Your task to perform on an android device: Search for vegetarian restaurants on Maps Image 0: 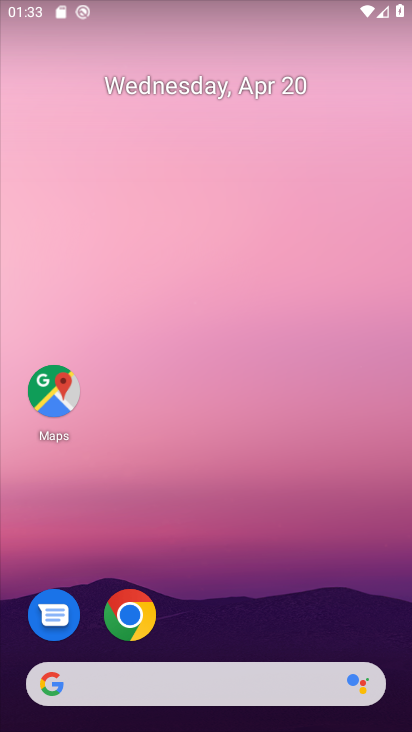
Step 0: click (47, 388)
Your task to perform on an android device: Search for vegetarian restaurants on Maps Image 1: 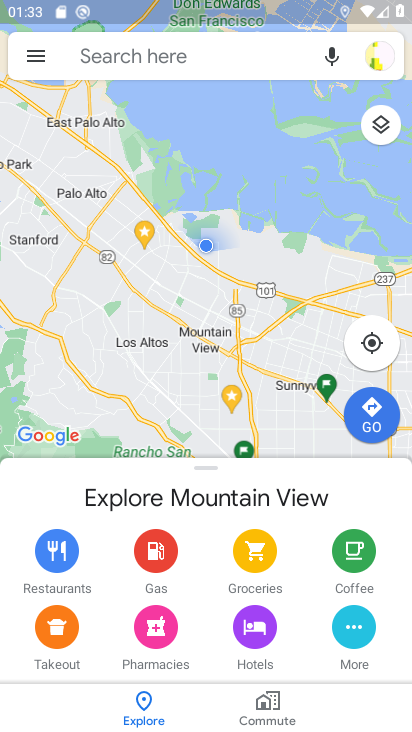
Step 1: click (211, 57)
Your task to perform on an android device: Search for vegetarian restaurants on Maps Image 2: 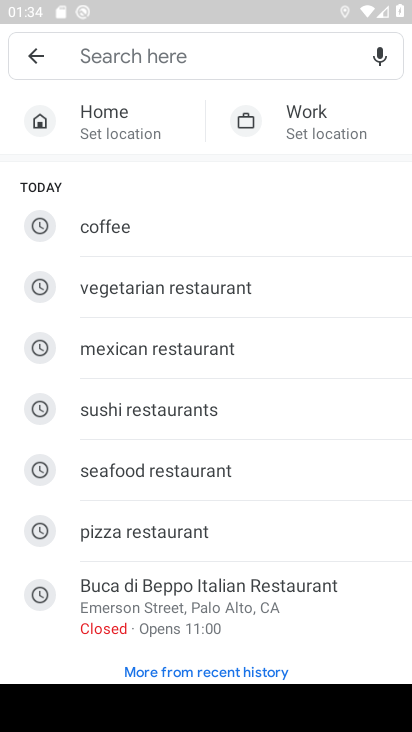
Step 2: type "vegetarian restaurants"
Your task to perform on an android device: Search for vegetarian restaurants on Maps Image 3: 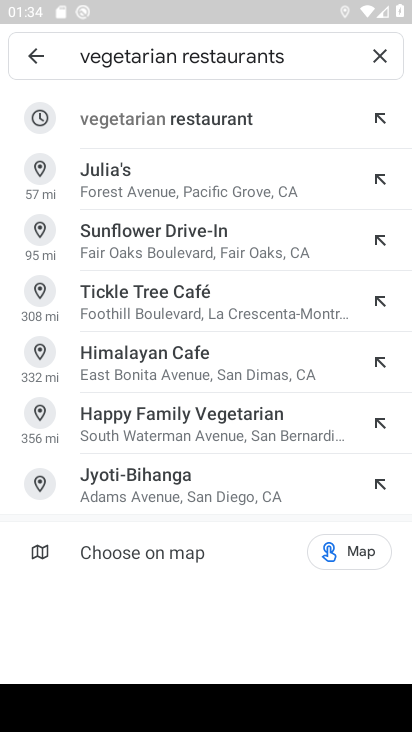
Step 3: click (151, 117)
Your task to perform on an android device: Search for vegetarian restaurants on Maps Image 4: 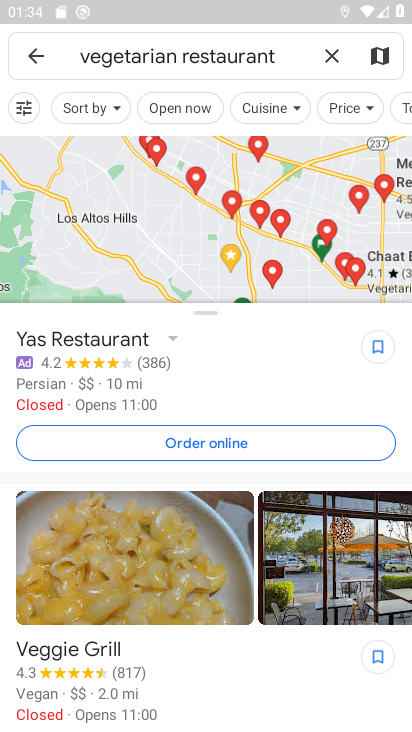
Step 4: task complete